Your task to perform on an android device: Open Google Chrome and click the shortcut for Amazon.com Image 0: 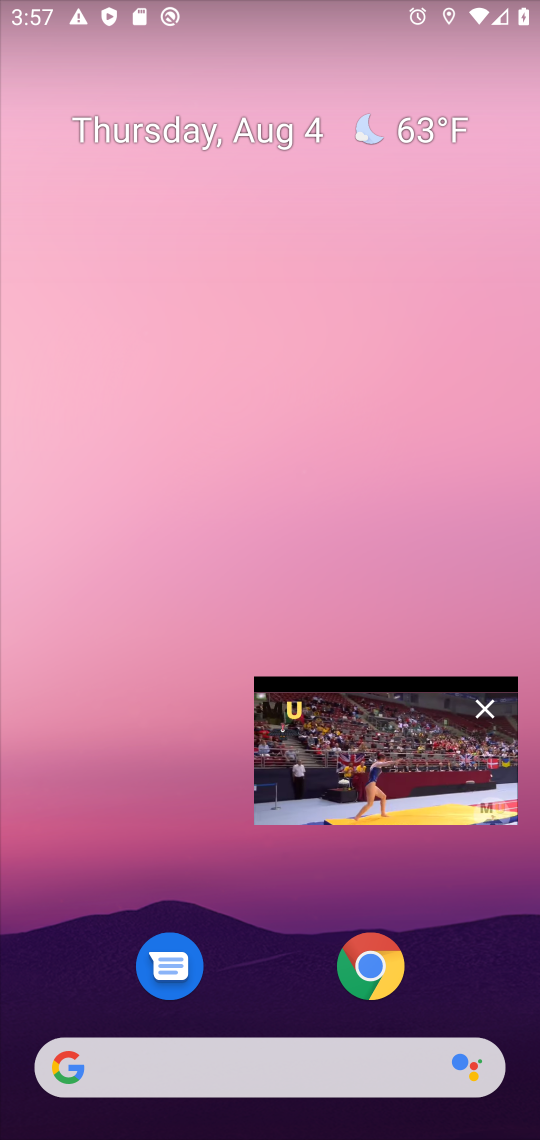
Step 0: press home button
Your task to perform on an android device: Open Google Chrome and click the shortcut for Amazon.com Image 1: 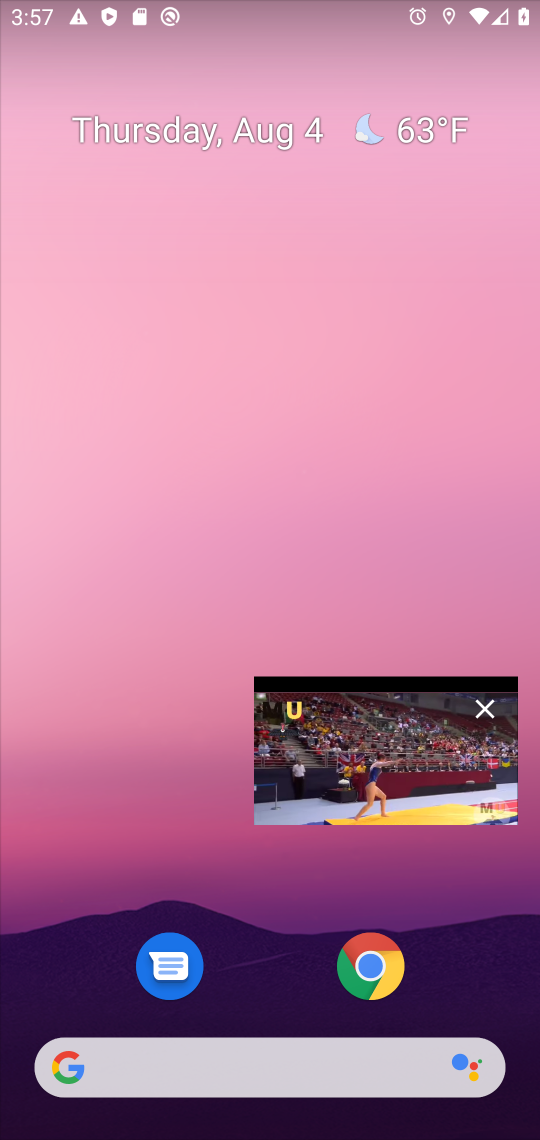
Step 1: click (486, 711)
Your task to perform on an android device: Open Google Chrome and click the shortcut for Amazon.com Image 2: 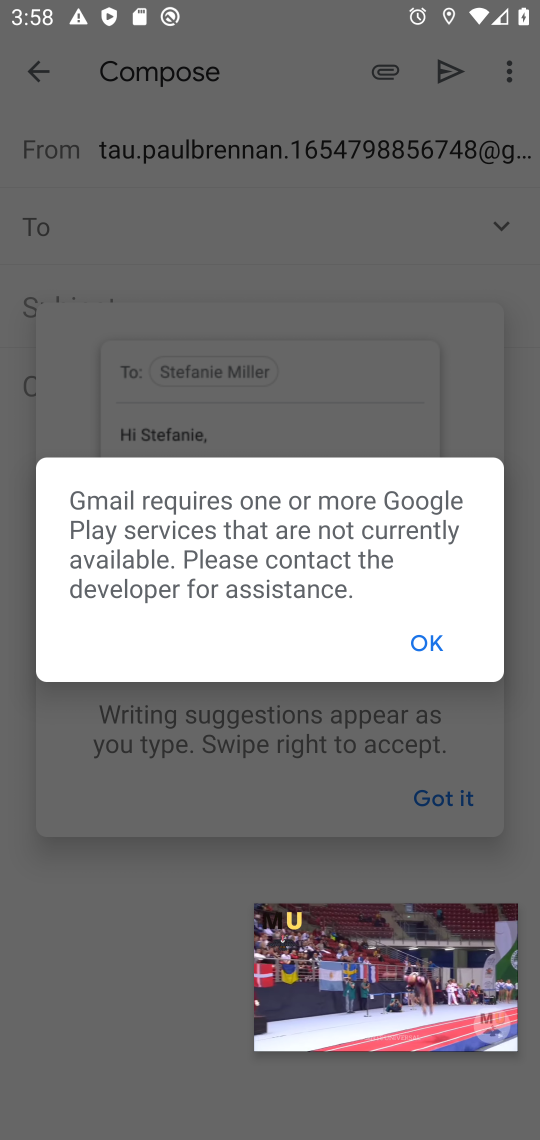
Step 2: press home button
Your task to perform on an android device: Open Google Chrome and click the shortcut for Amazon.com Image 3: 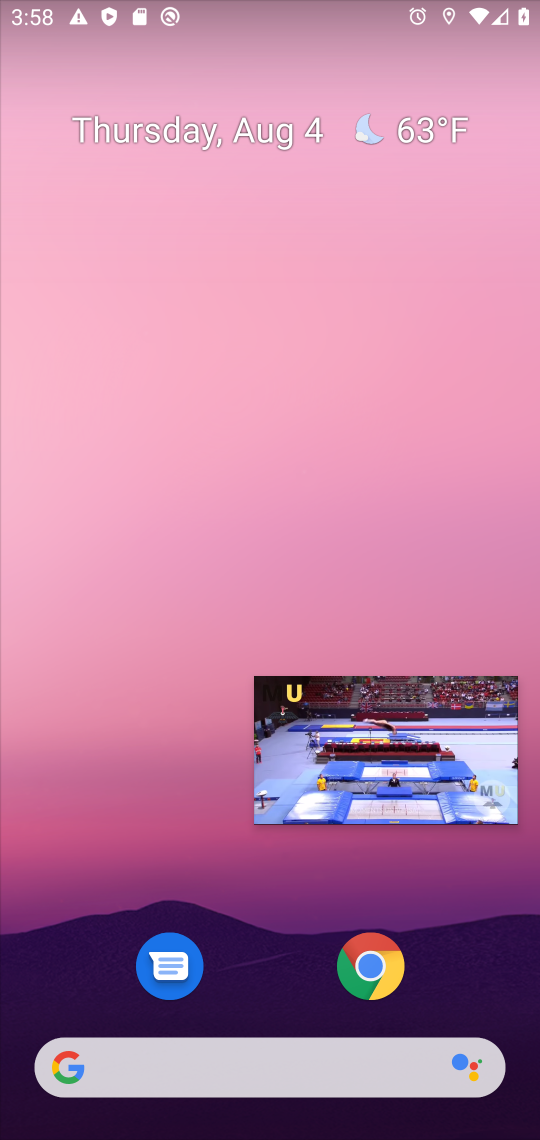
Step 3: press home button
Your task to perform on an android device: Open Google Chrome and click the shortcut for Amazon.com Image 4: 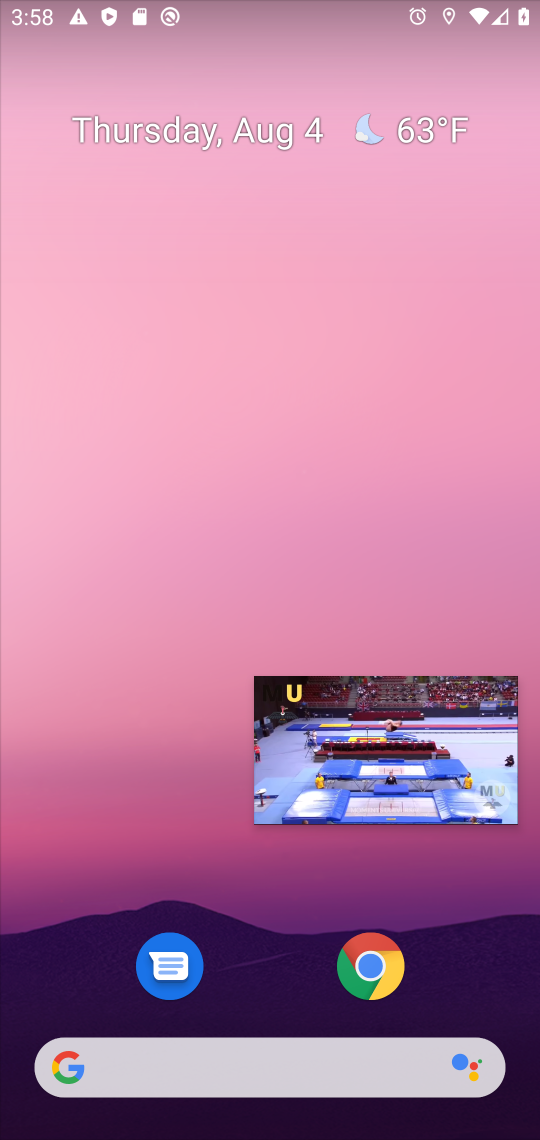
Step 4: click (493, 692)
Your task to perform on an android device: Open Google Chrome and click the shortcut for Amazon.com Image 5: 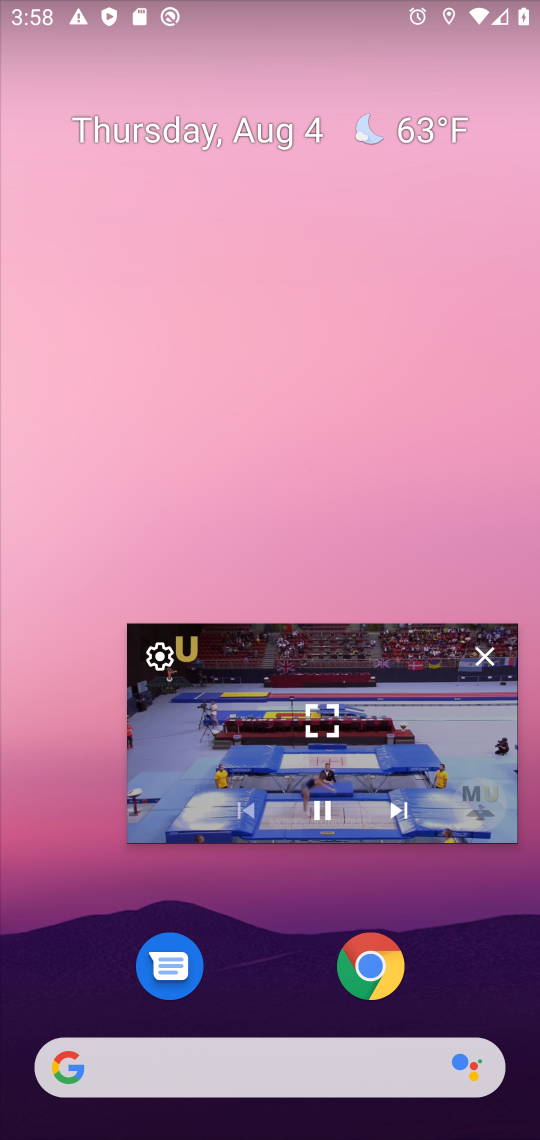
Step 5: click (497, 658)
Your task to perform on an android device: Open Google Chrome and click the shortcut for Amazon.com Image 6: 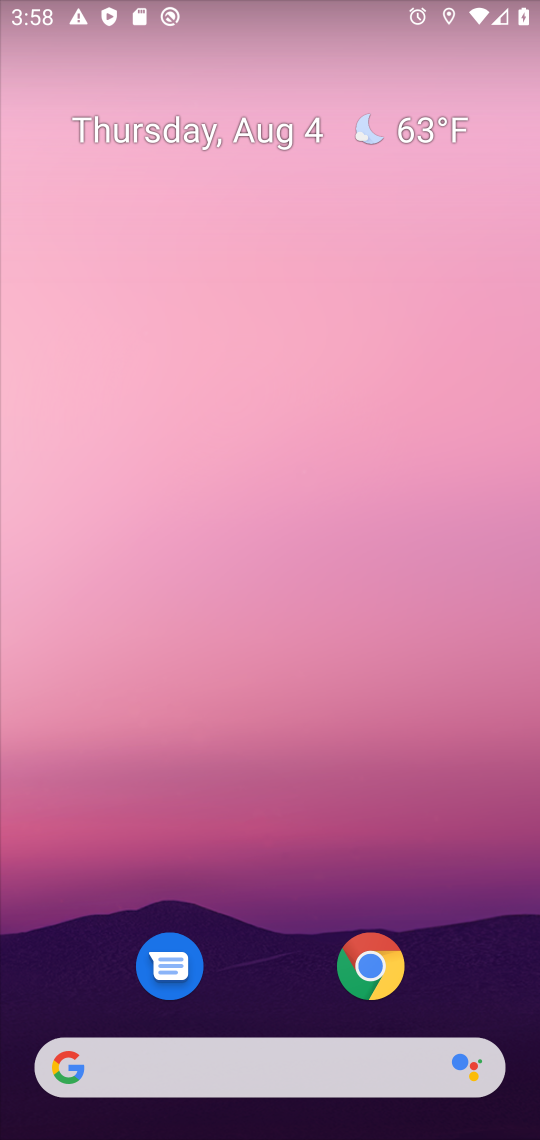
Step 6: click (376, 978)
Your task to perform on an android device: Open Google Chrome and click the shortcut for Amazon.com Image 7: 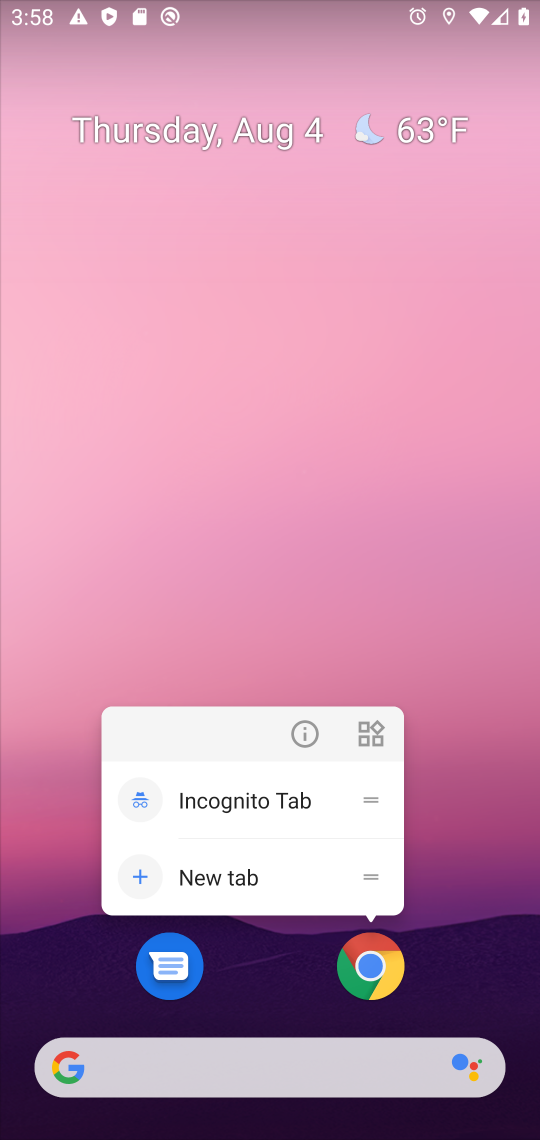
Step 7: click (386, 962)
Your task to perform on an android device: Open Google Chrome and click the shortcut for Amazon.com Image 8: 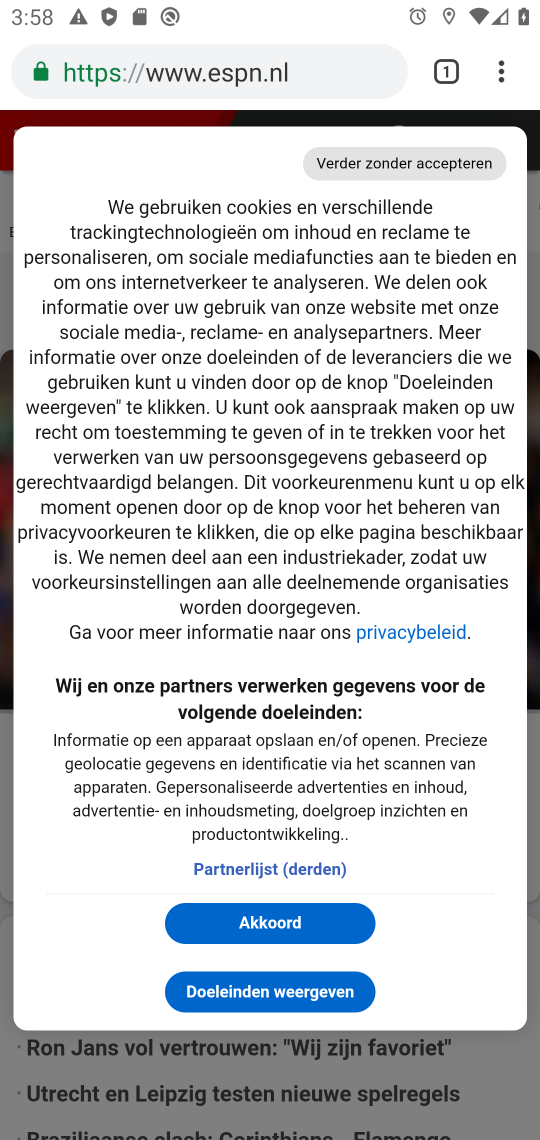
Step 8: click (443, 67)
Your task to perform on an android device: Open Google Chrome and click the shortcut for Amazon.com Image 9: 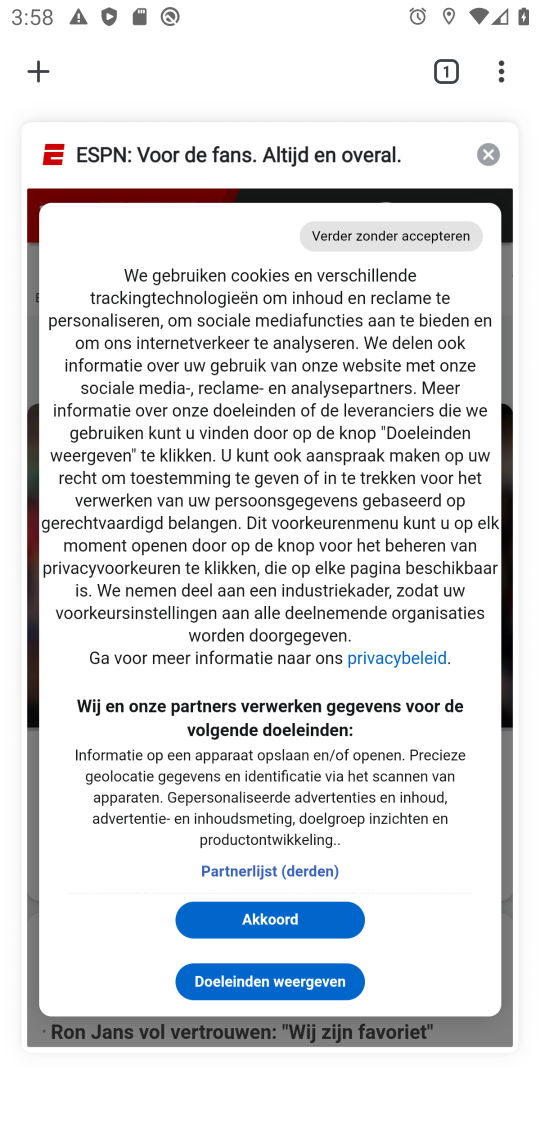
Step 9: click (40, 74)
Your task to perform on an android device: Open Google Chrome and click the shortcut for Amazon.com Image 10: 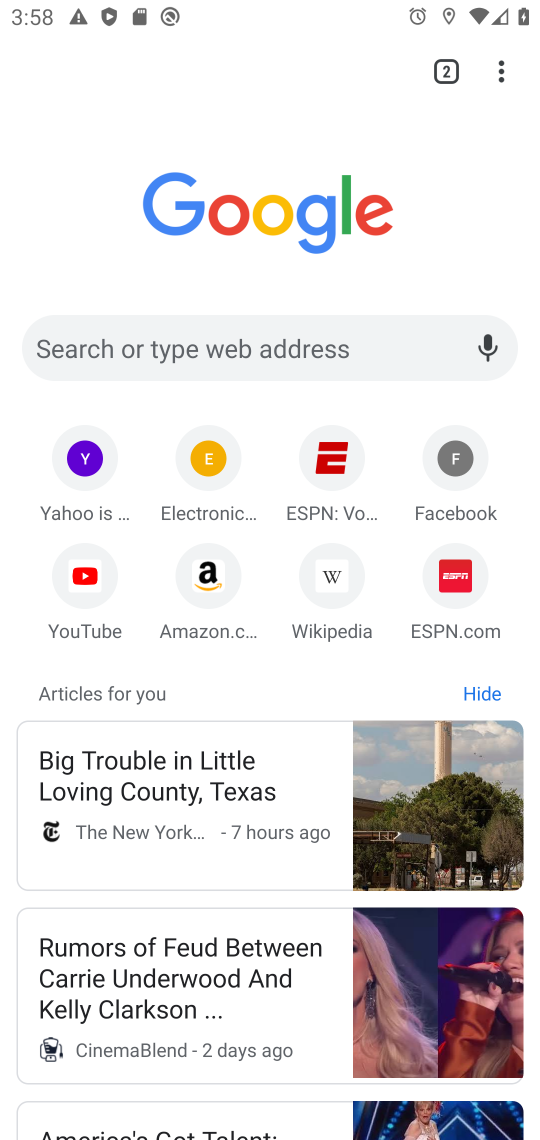
Step 10: click (202, 574)
Your task to perform on an android device: Open Google Chrome and click the shortcut for Amazon.com Image 11: 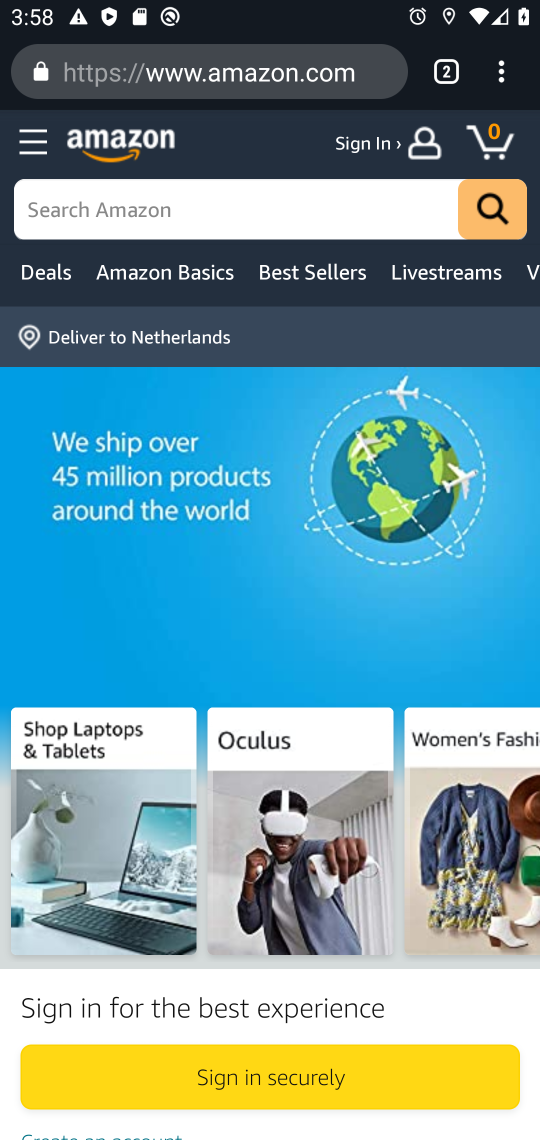
Step 11: task complete